Your task to perform on an android device: set the timer Image 0: 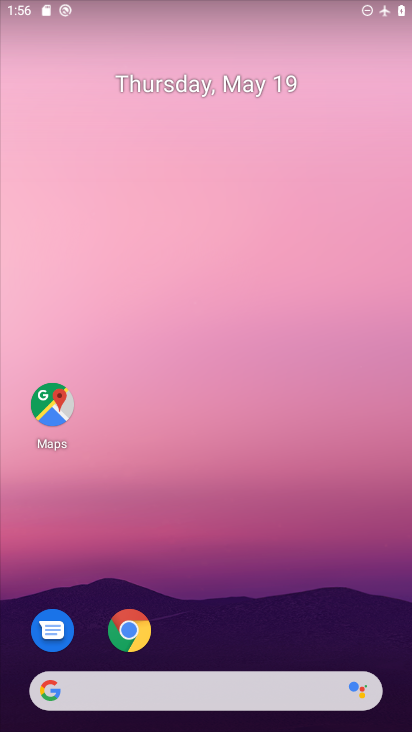
Step 0: drag from (226, 657) to (197, 9)
Your task to perform on an android device: set the timer Image 1: 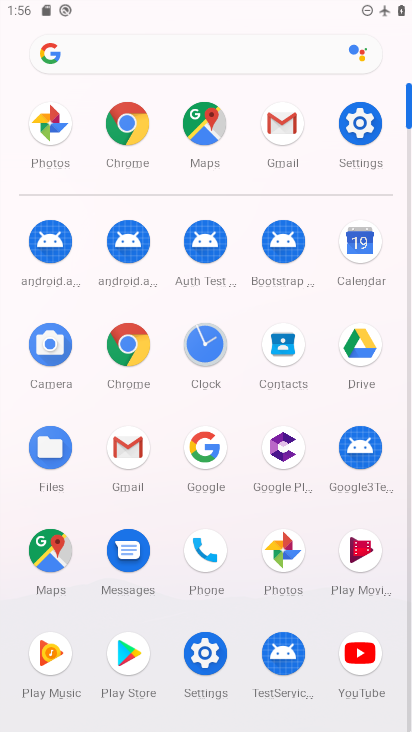
Step 1: click (199, 361)
Your task to perform on an android device: set the timer Image 2: 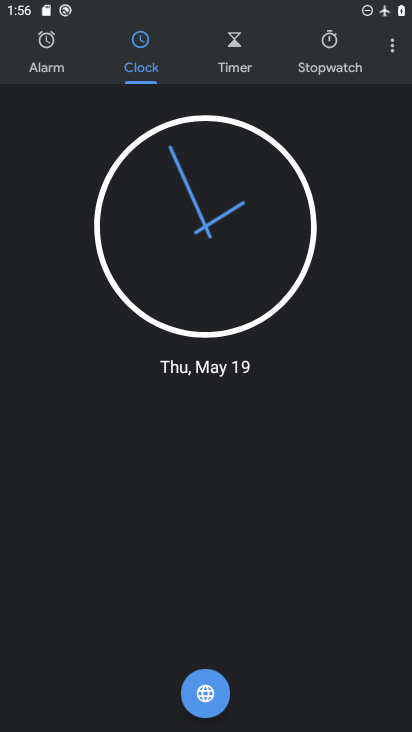
Step 2: click (233, 31)
Your task to perform on an android device: set the timer Image 3: 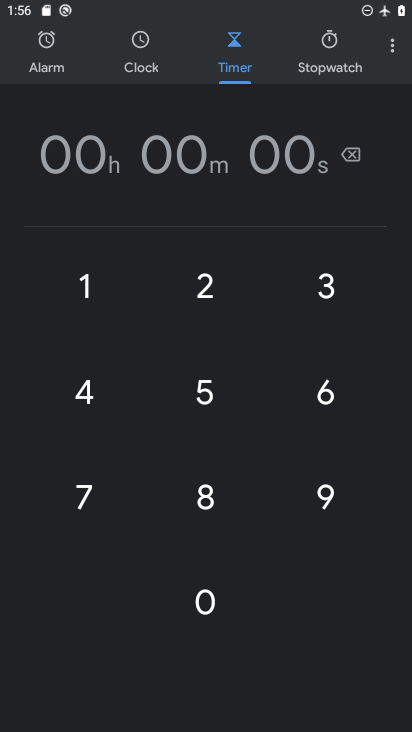
Step 3: click (202, 262)
Your task to perform on an android device: set the timer Image 4: 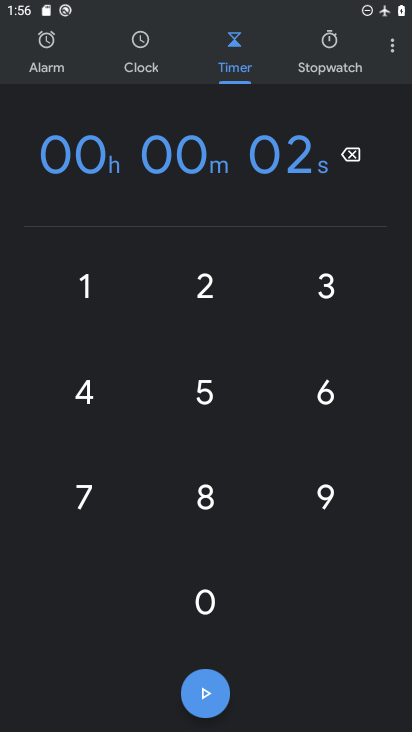
Step 4: click (200, 660)
Your task to perform on an android device: set the timer Image 5: 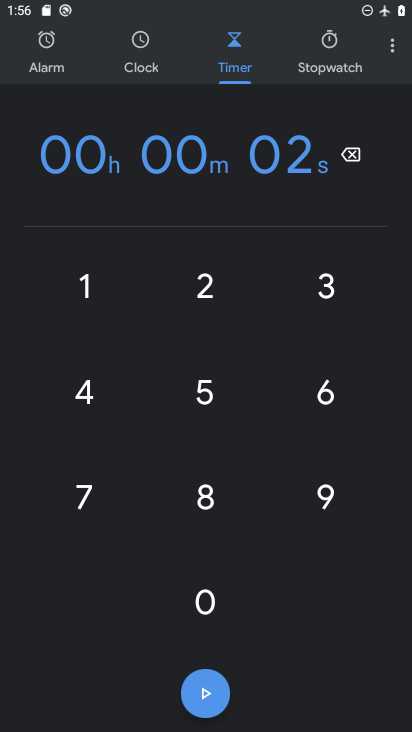
Step 5: task complete